Your task to perform on an android device: turn off translation in the chrome app Image 0: 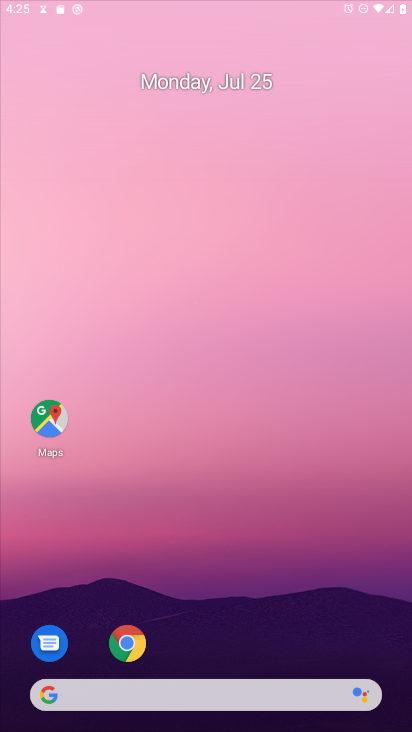
Step 0: press home button
Your task to perform on an android device: turn off translation in the chrome app Image 1: 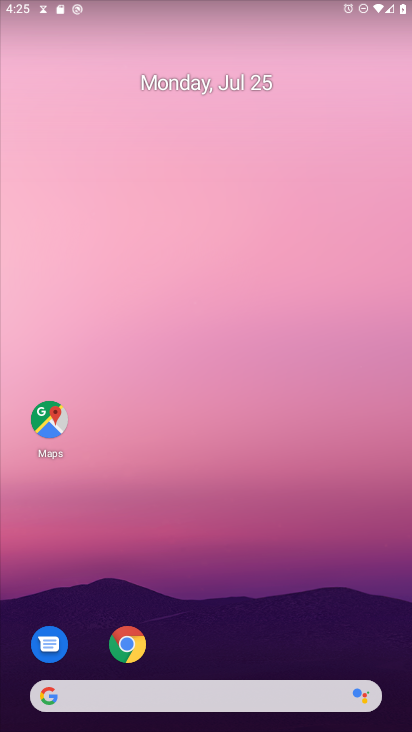
Step 1: click (133, 645)
Your task to perform on an android device: turn off translation in the chrome app Image 2: 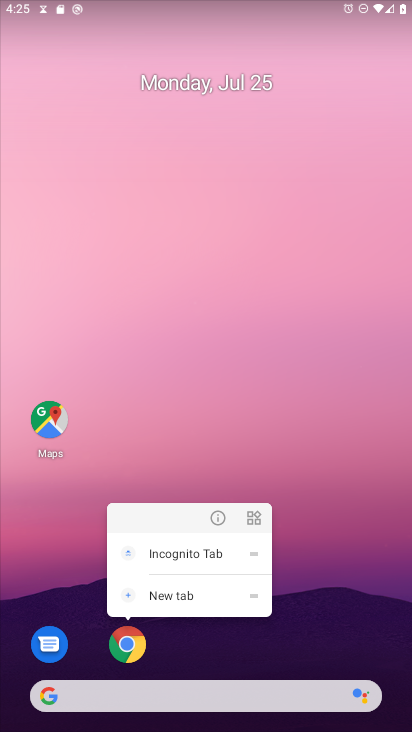
Step 2: click (133, 645)
Your task to perform on an android device: turn off translation in the chrome app Image 3: 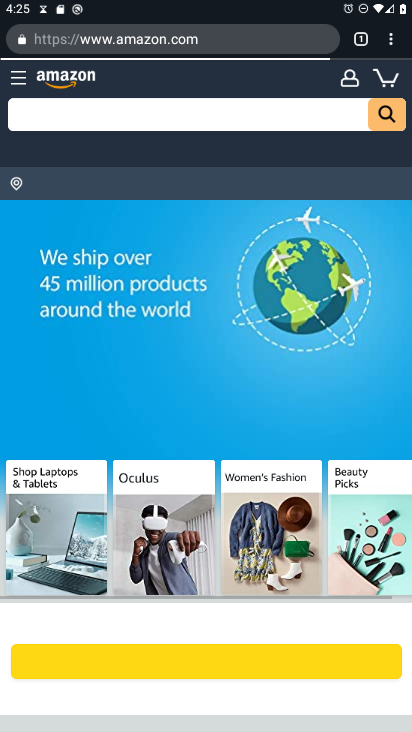
Step 3: drag from (388, 40) to (246, 438)
Your task to perform on an android device: turn off translation in the chrome app Image 4: 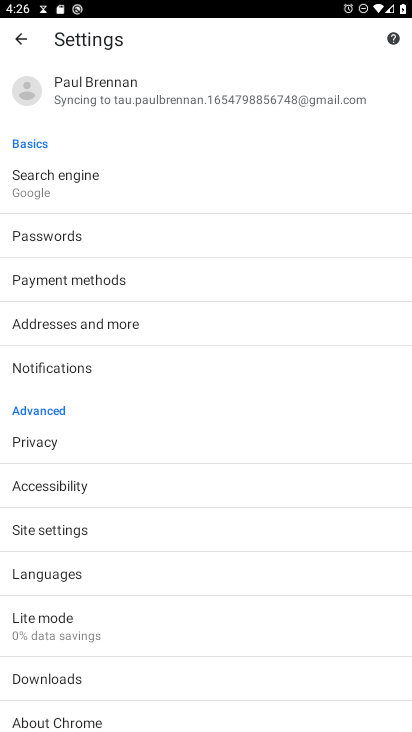
Step 4: click (61, 571)
Your task to perform on an android device: turn off translation in the chrome app Image 5: 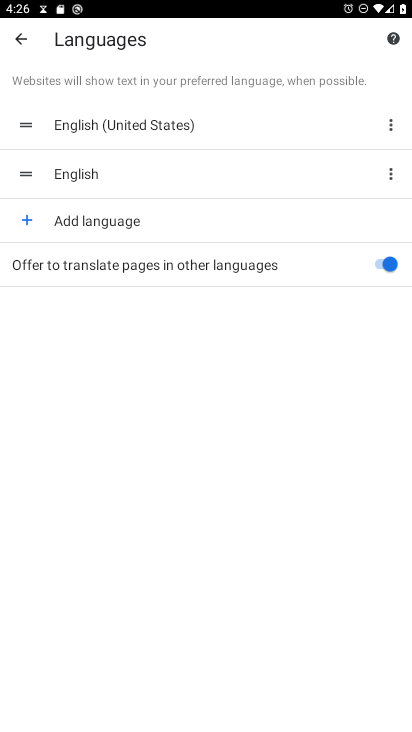
Step 5: click (387, 262)
Your task to perform on an android device: turn off translation in the chrome app Image 6: 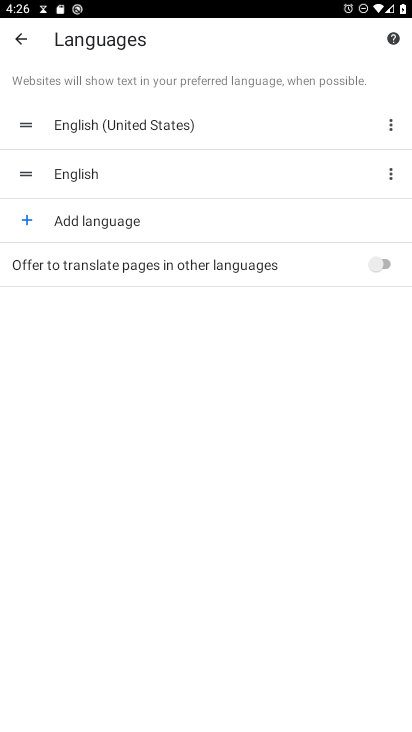
Step 6: task complete